Your task to perform on an android device: toggle data saver in the chrome app Image 0: 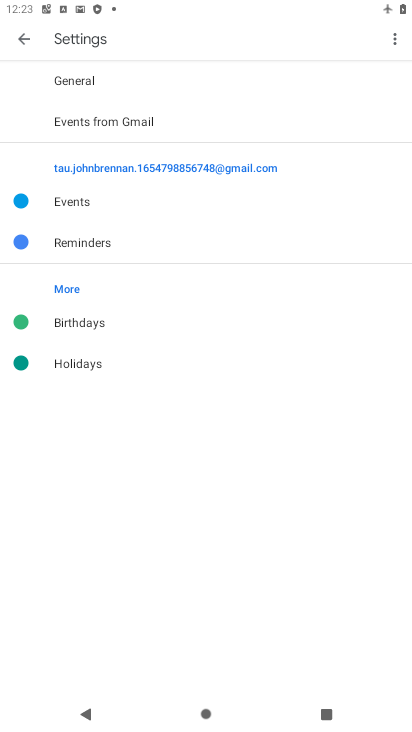
Step 0: press home button
Your task to perform on an android device: toggle data saver in the chrome app Image 1: 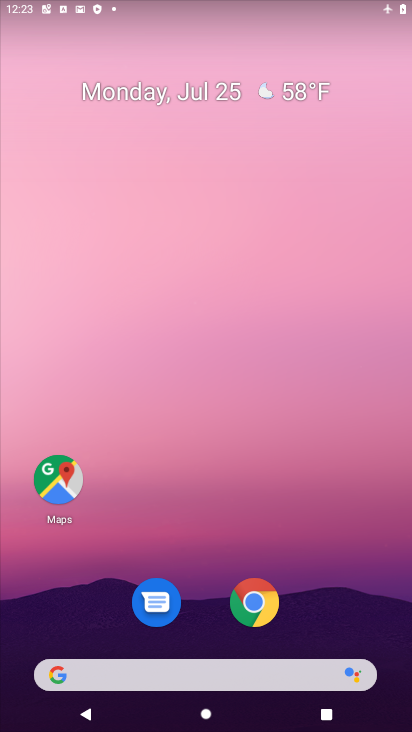
Step 1: click (243, 596)
Your task to perform on an android device: toggle data saver in the chrome app Image 2: 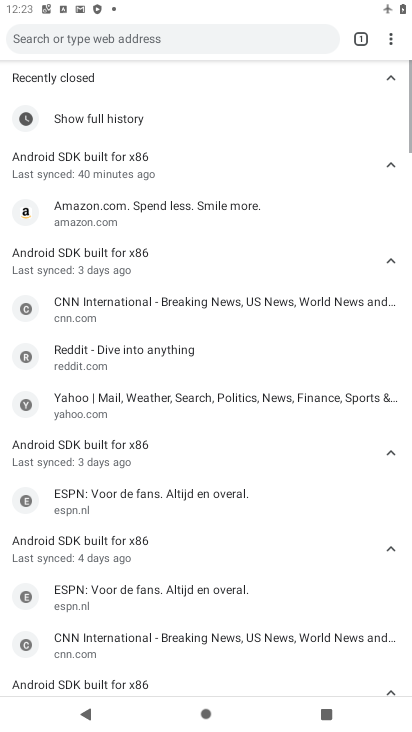
Step 2: click (387, 36)
Your task to perform on an android device: toggle data saver in the chrome app Image 3: 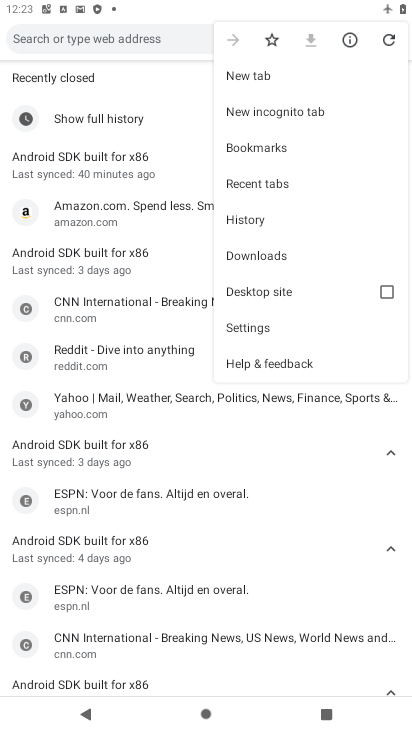
Step 3: click (260, 332)
Your task to perform on an android device: toggle data saver in the chrome app Image 4: 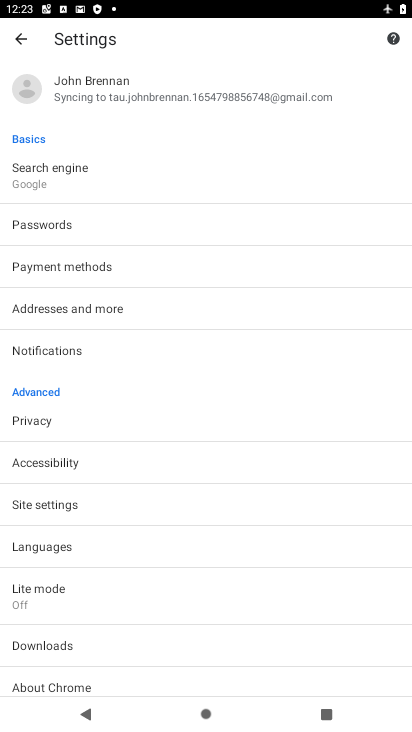
Step 4: click (101, 602)
Your task to perform on an android device: toggle data saver in the chrome app Image 5: 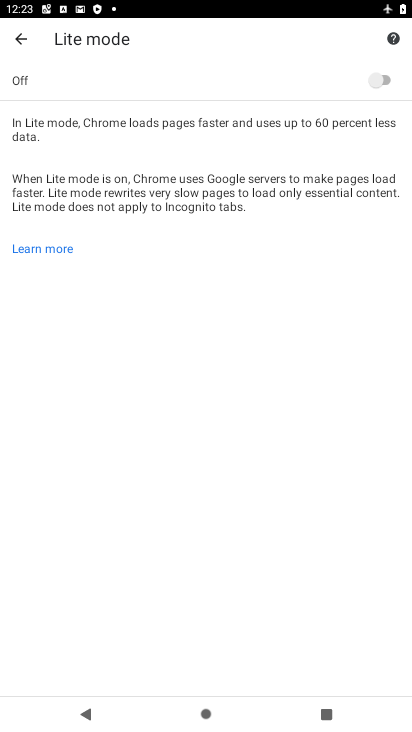
Step 5: click (393, 81)
Your task to perform on an android device: toggle data saver in the chrome app Image 6: 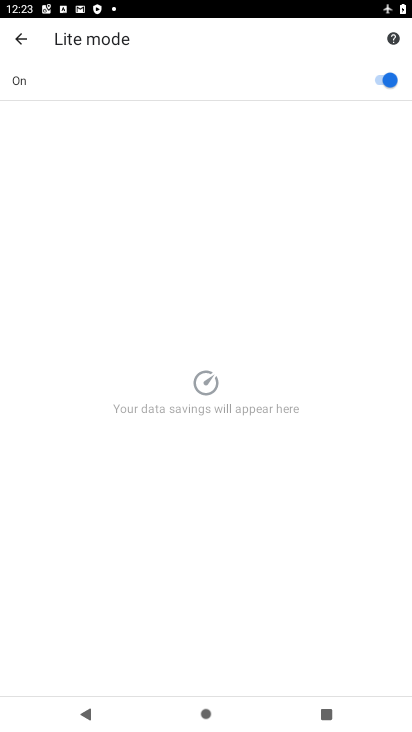
Step 6: task complete